Your task to perform on an android device: Open eBay Image 0: 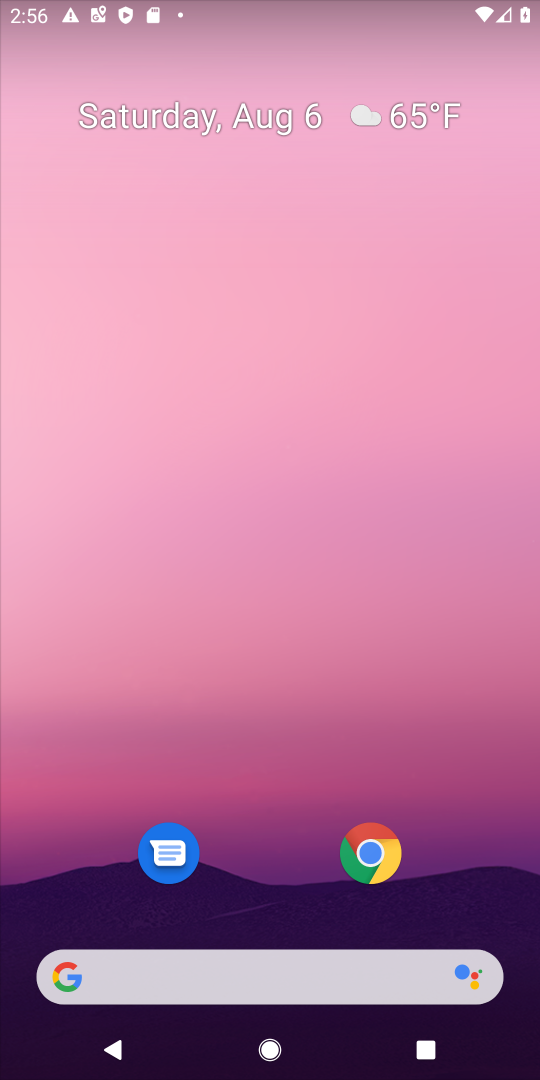
Step 0: click (369, 866)
Your task to perform on an android device: Open eBay Image 1: 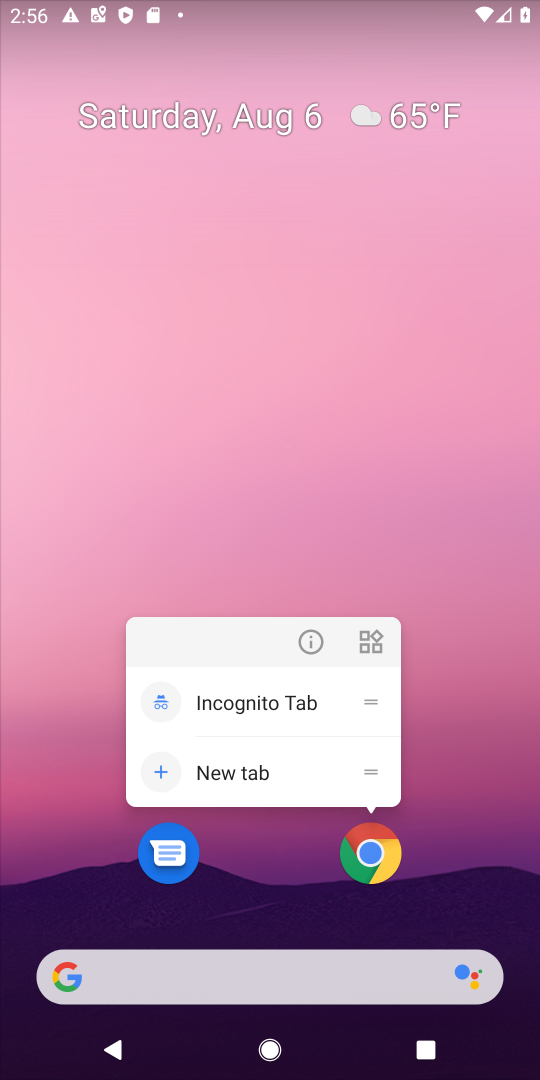
Step 1: click (372, 850)
Your task to perform on an android device: Open eBay Image 2: 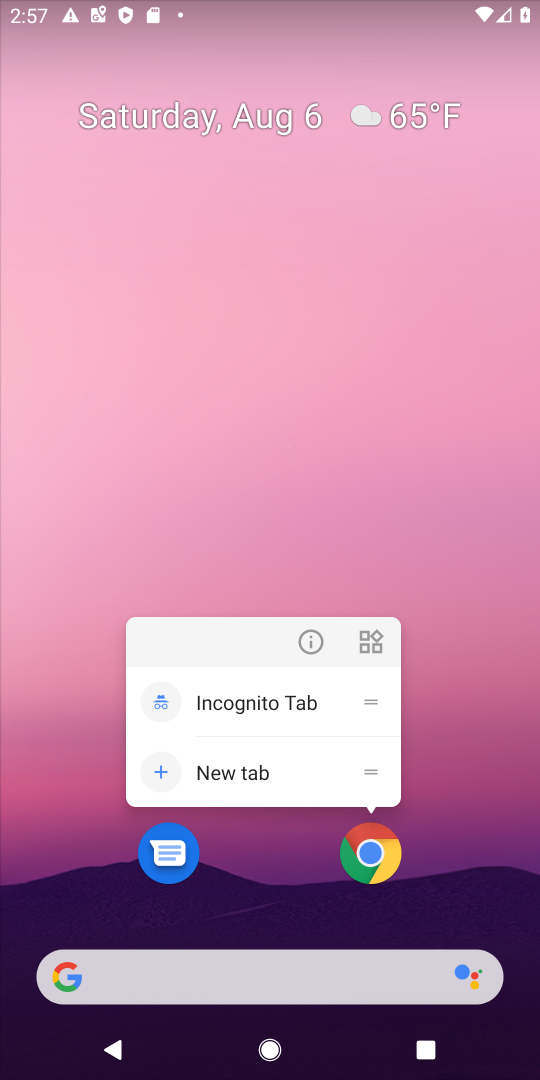
Step 2: click (378, 862)
Your task to perform on an android device: Open eBay Image 3: 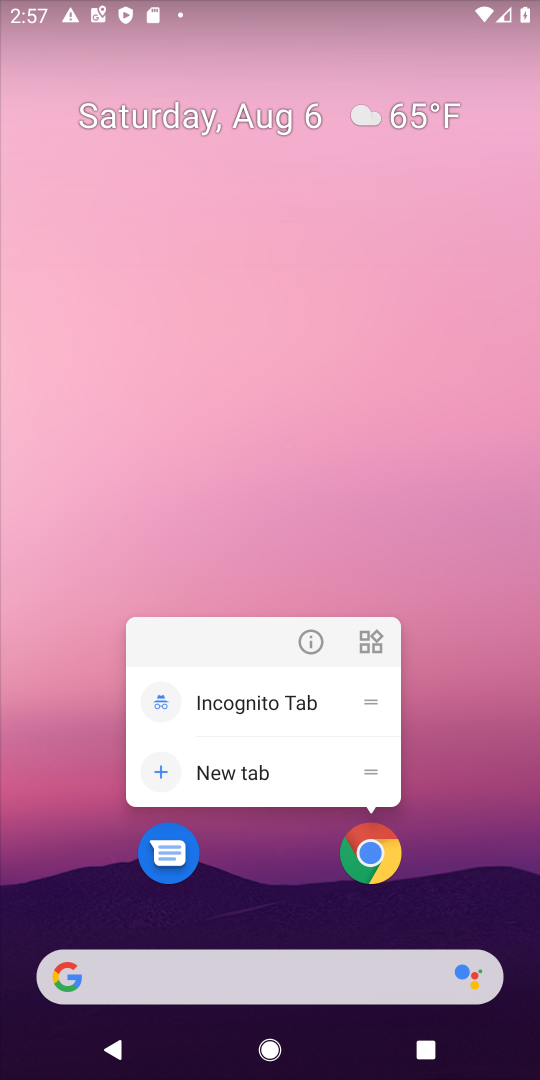
Step 3: click (371, 863)
Your task to perform on an android device: Open eBay Image 4: 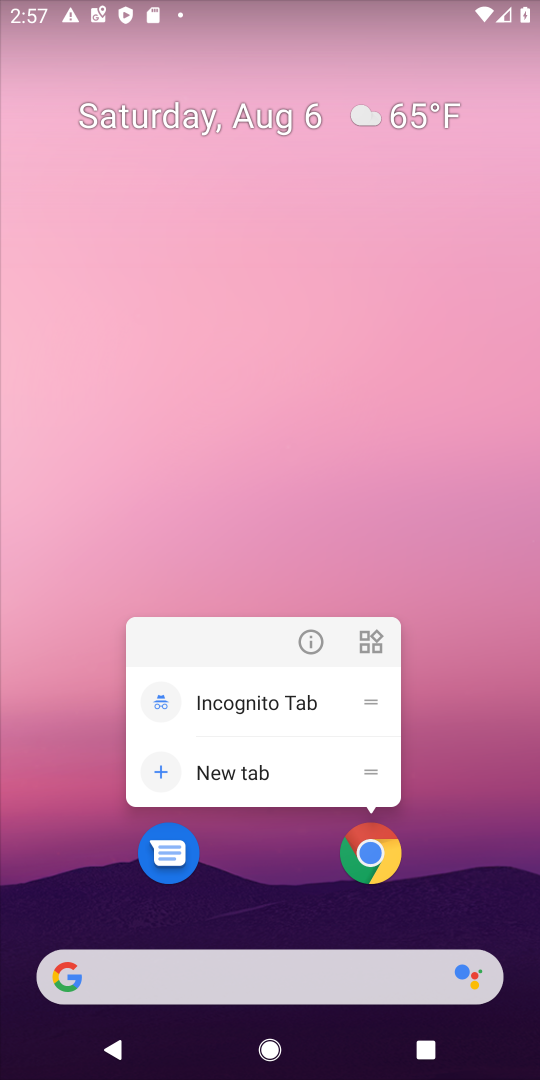
Step 4: click (384, 839)
Your task to perform on an android device: Open eBay Image 5: 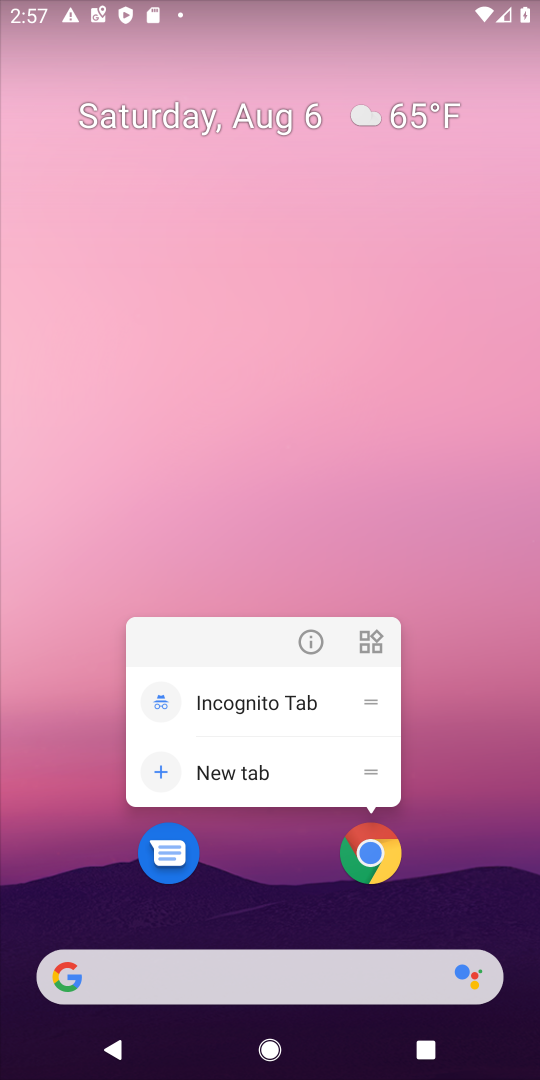
Step 5: click (380, 858)
Your task to perform on an android device: Open eBay Image 6: 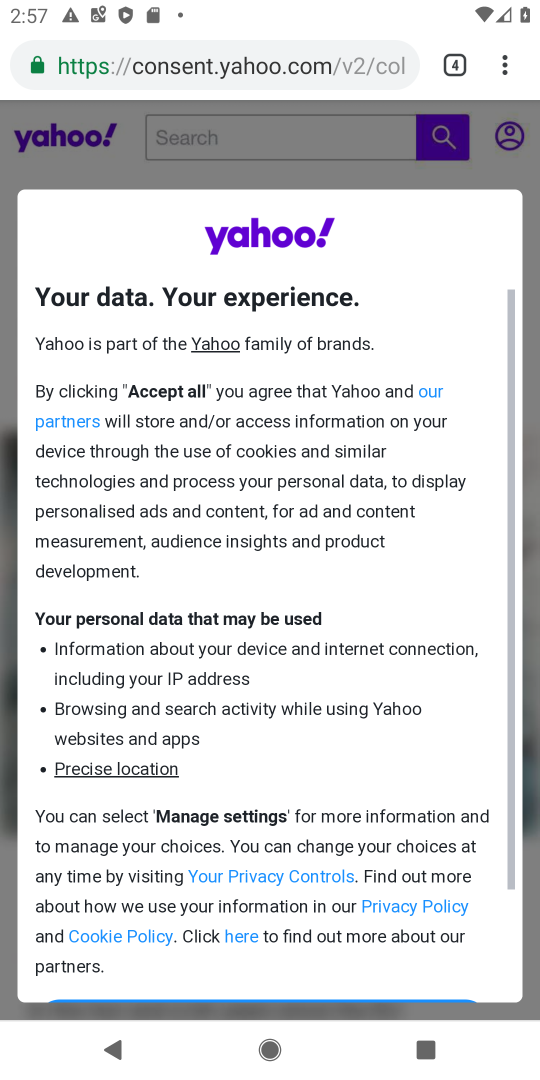
Step 6: click (454, 64)
Your task to perform on an android device: Open eBay Image 7: 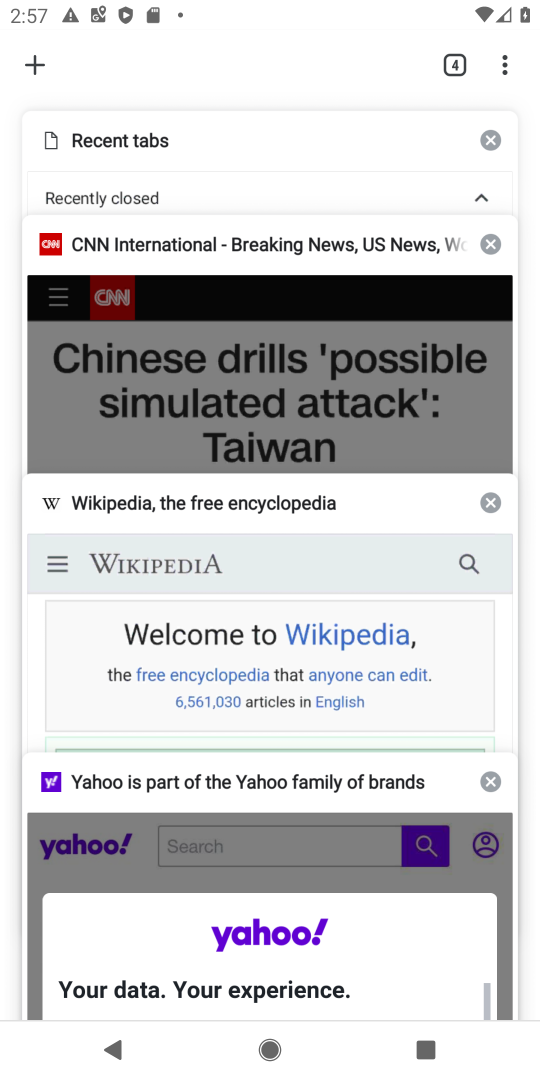
Step 7: click (52, 54)
Your task to perform on an android device: Open eBay Image 8: 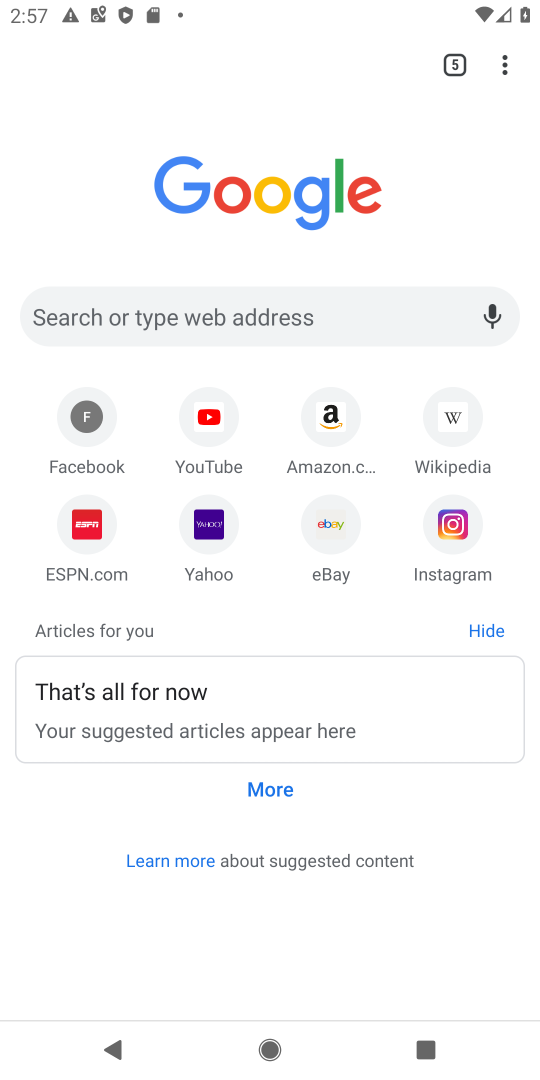
Step 8: click (331, 529)
Your task to perform on an android device: Open eBay Image 9: 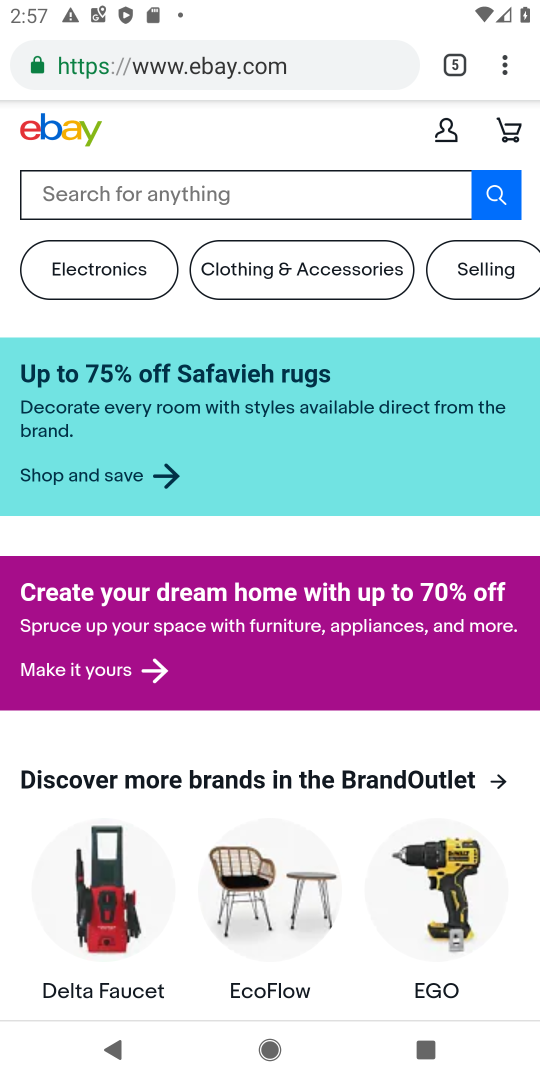
Step 9: task complete